Your task to perform on an android device: Search for Italian restaurants on Maps Image 0: 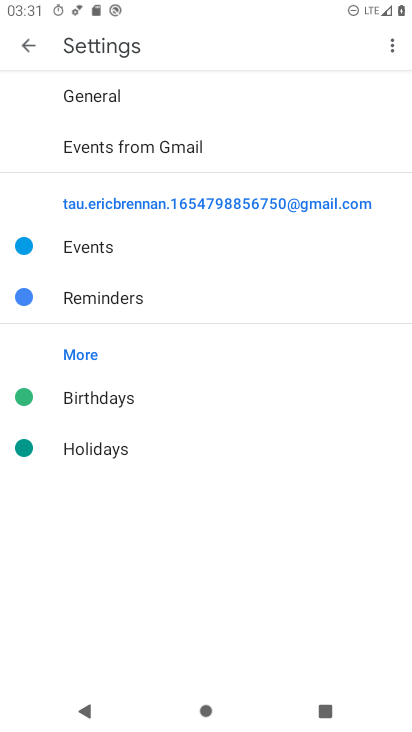
Step 0: press home button
Your task to perform on an android device: Search for Italian restaurants on Maps Image 1: 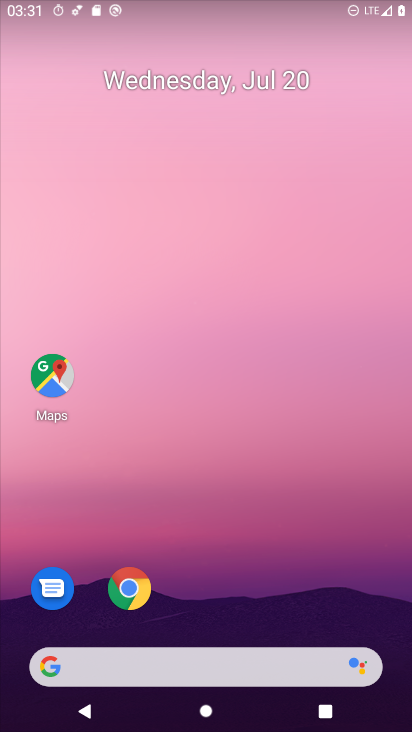
Step 1: click (47, 362)
Your task to perform on an android device: Search for Italian restaurants on Maps Image 2: 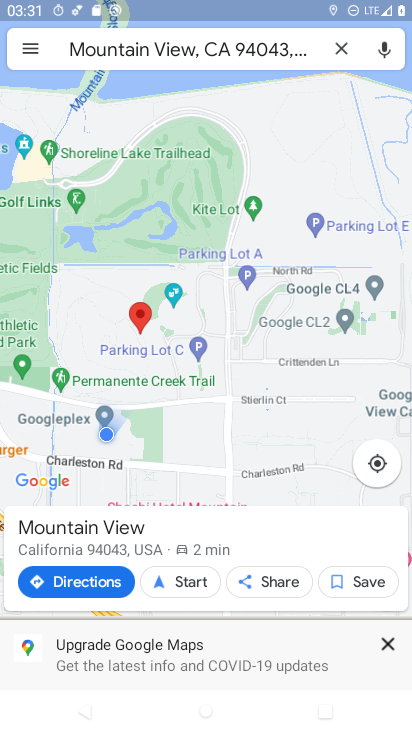
Step 2: click (334, 45)
Your task to perform on an android device: Search for Italian restaurants on Maps Image 3: 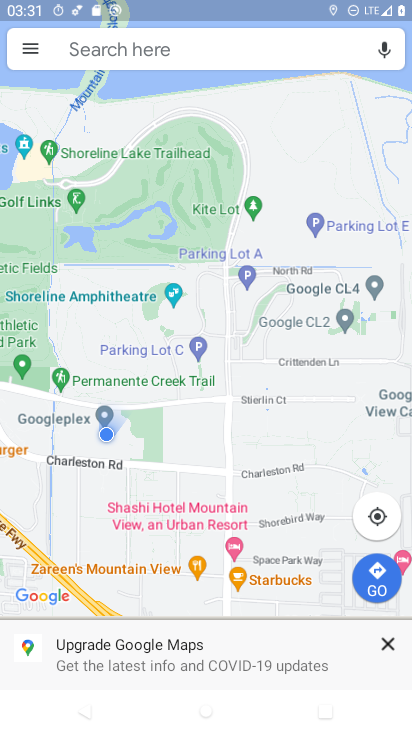
Step 3: click (257, 39)
Your task to perform on an android device: Search for Italian restaurants on Maps Image 4: 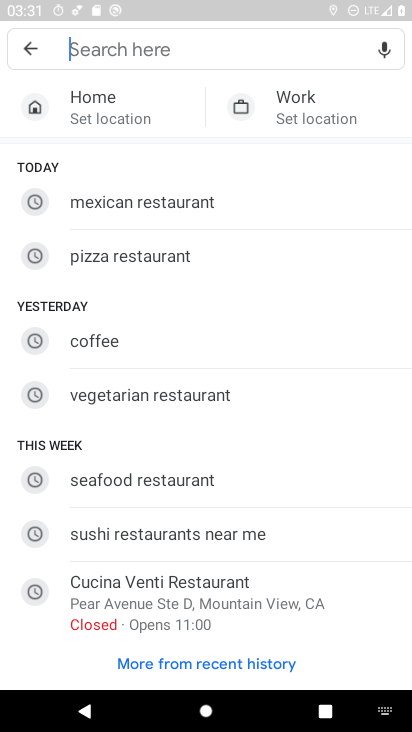
Step 4: drag from (233, 725) to (330, 719)
Your task to perform on an android device: Search for Italian restaurants on Maps Image 5: 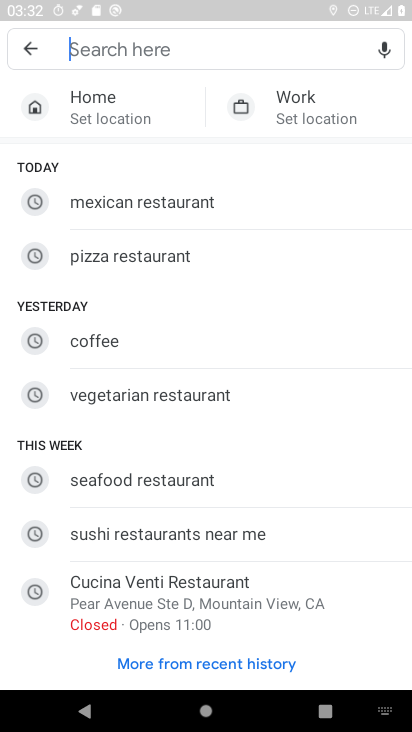
Step 5: type "Italian restaurants "
Your task to perform on an android device: Search for Italian restaurants on Maps Image 6: 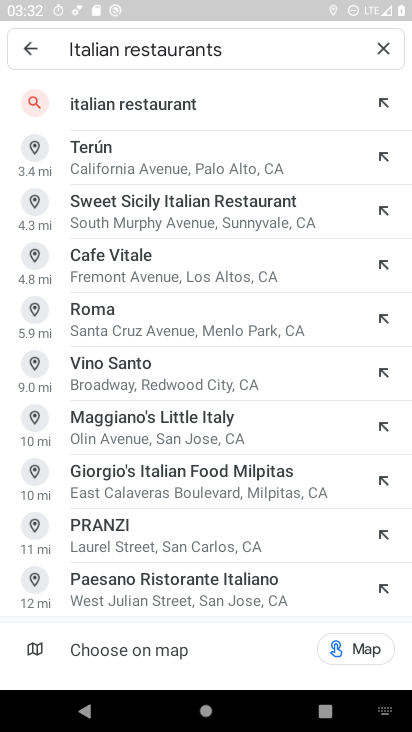
Step 6: click (155, 108)
Your task to perform on an android device: Search for Italian restaurants on Maps Image 7: 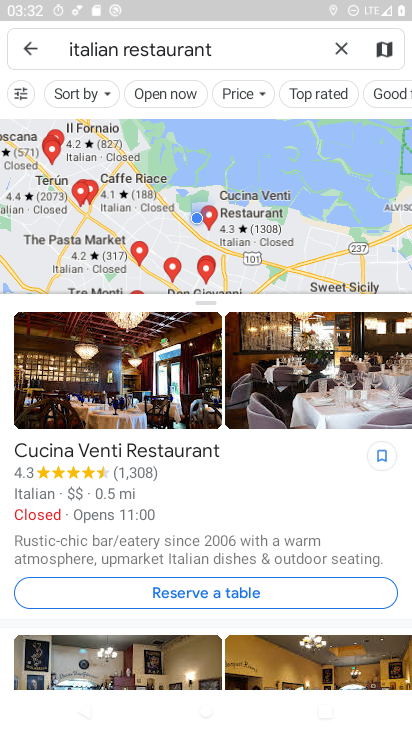
Step 7: task complete